Your task to perform on an android device: turn notification dots on Image 0: 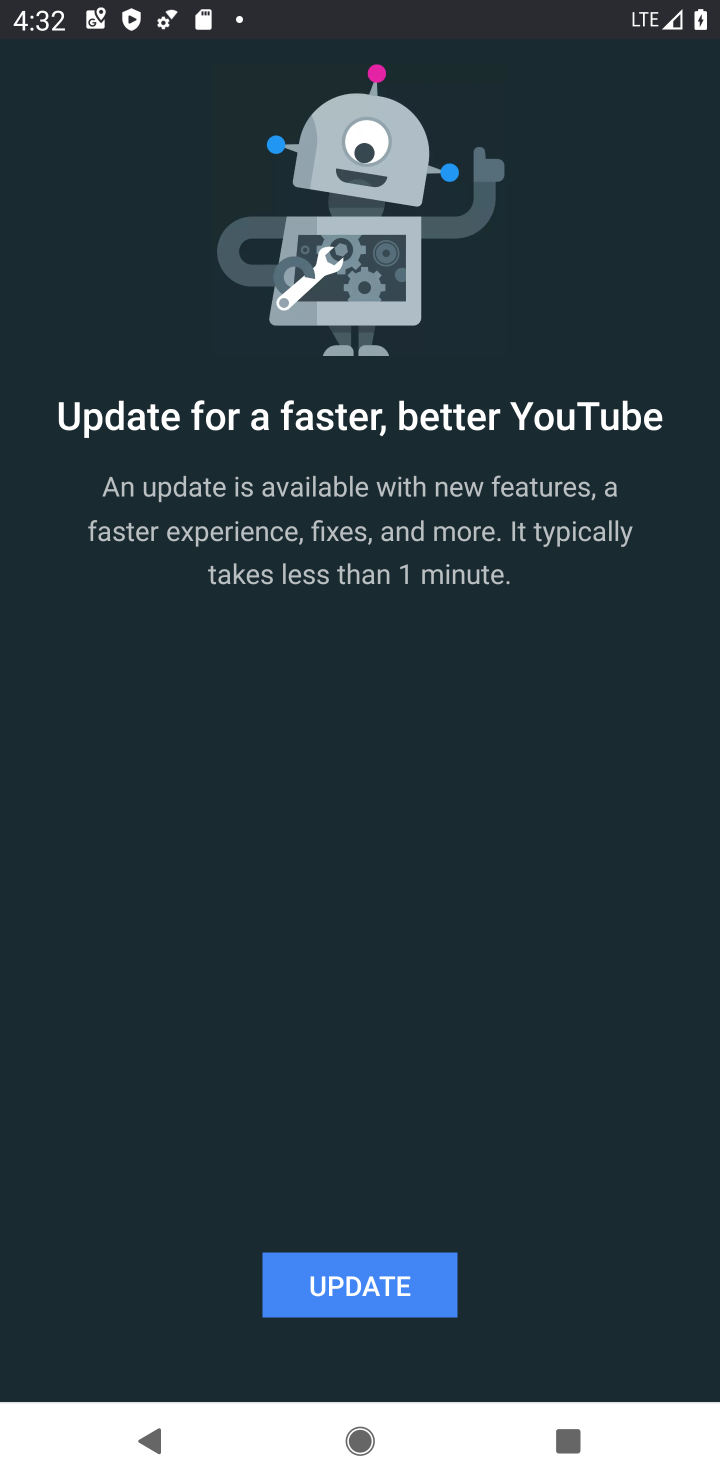
Step 0: press home button
Your task to perform on an android device: turn notification dots on Image 1: 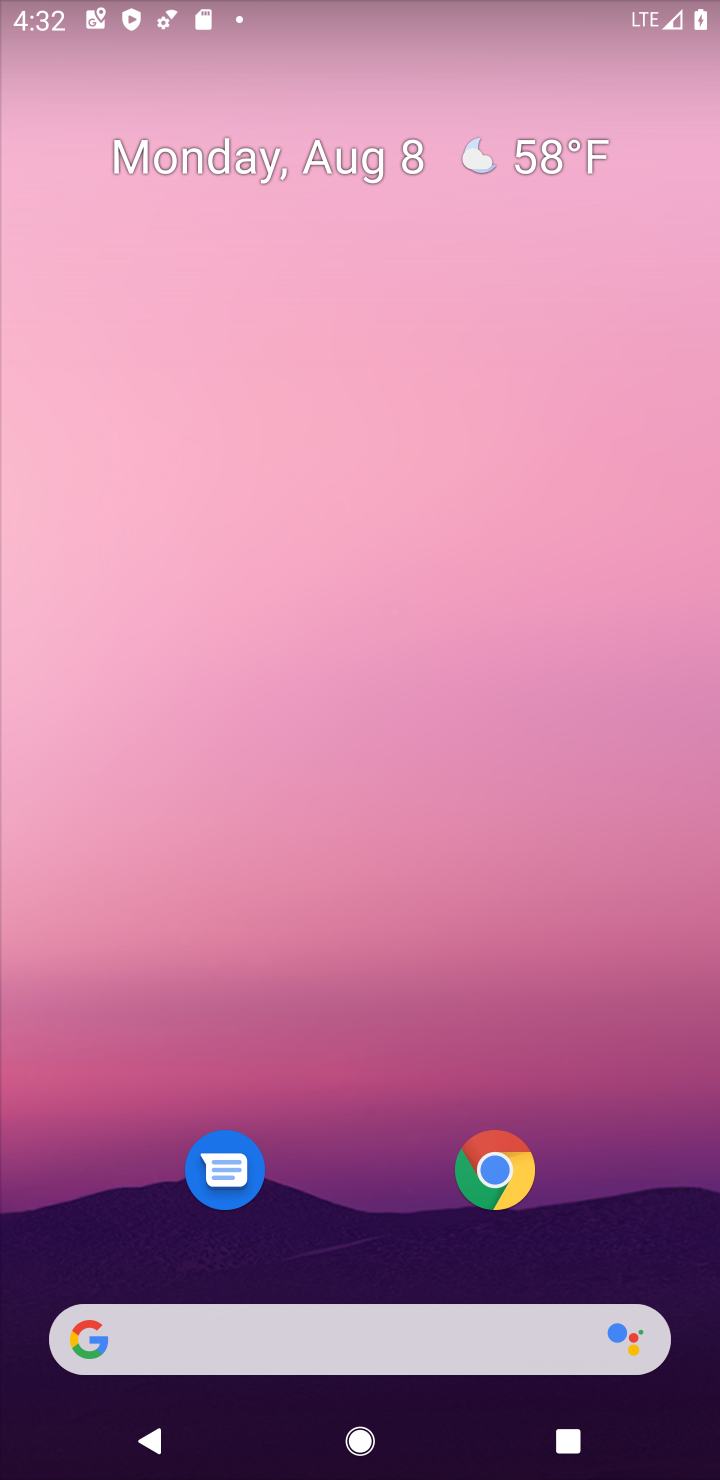
Step 1: drag from (343, 829) to (343, 270)
Your task to perform on an android device: turn notification dots on Image 2: 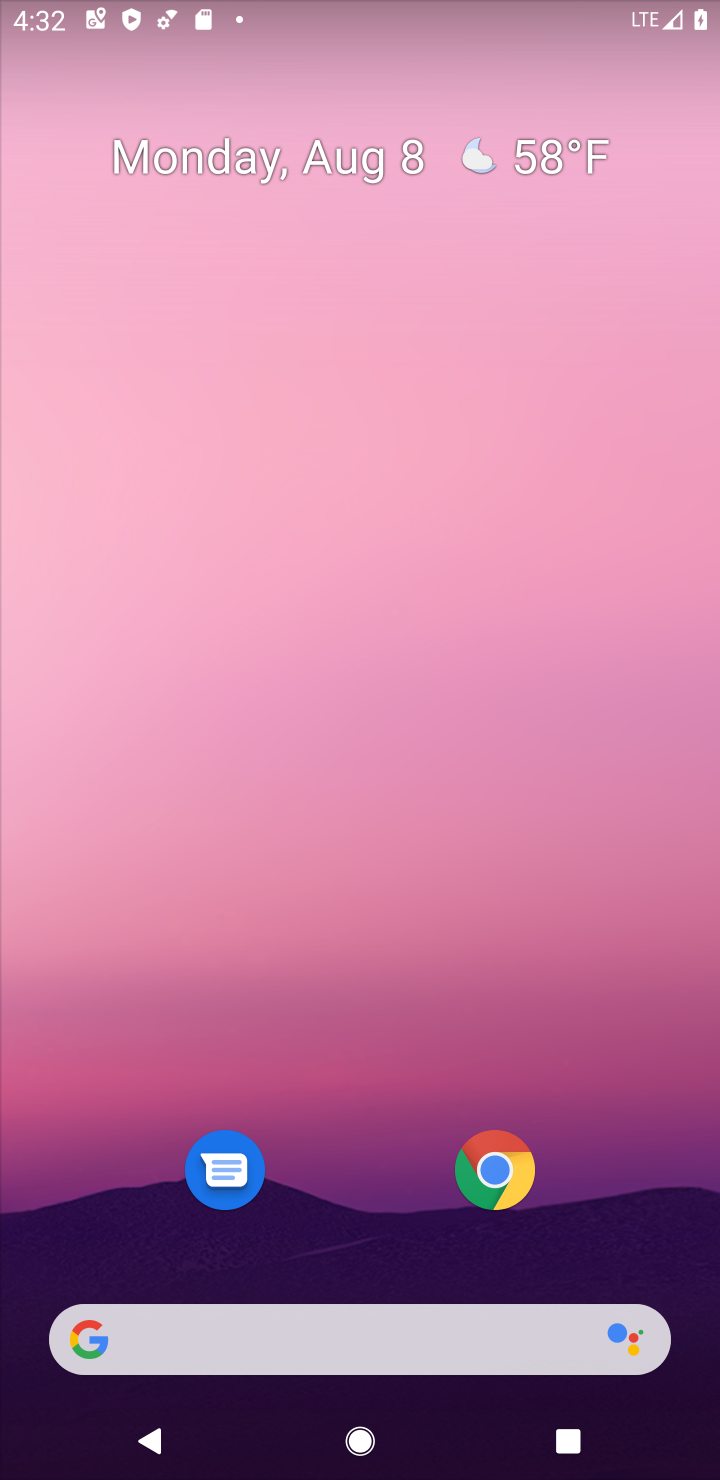
Step 2: drag from (300, 1139) to (290, 285)
Your task to perform on an android device: turn notification dots on Image 3: 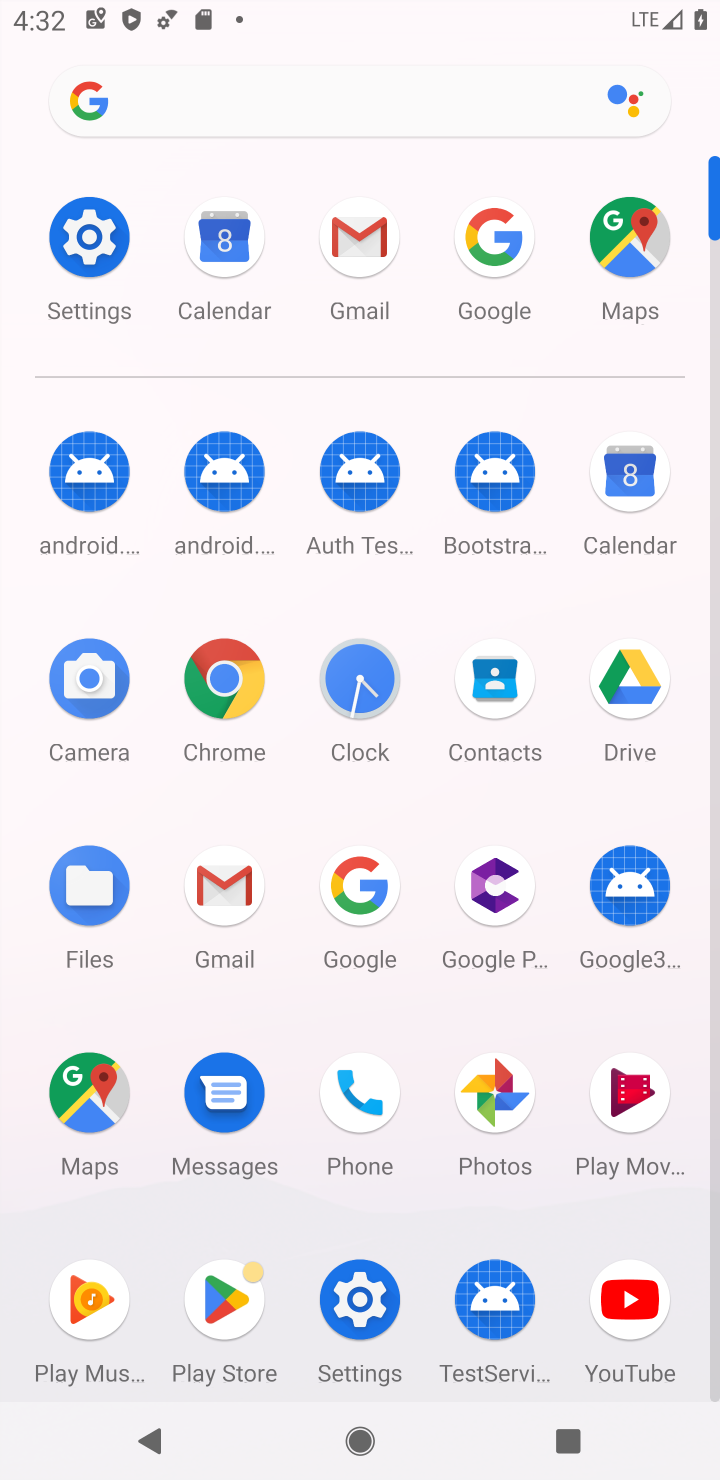
Step 3: click (110, 232)
Your task to perform on an android device: turn notification dots on Image 4: 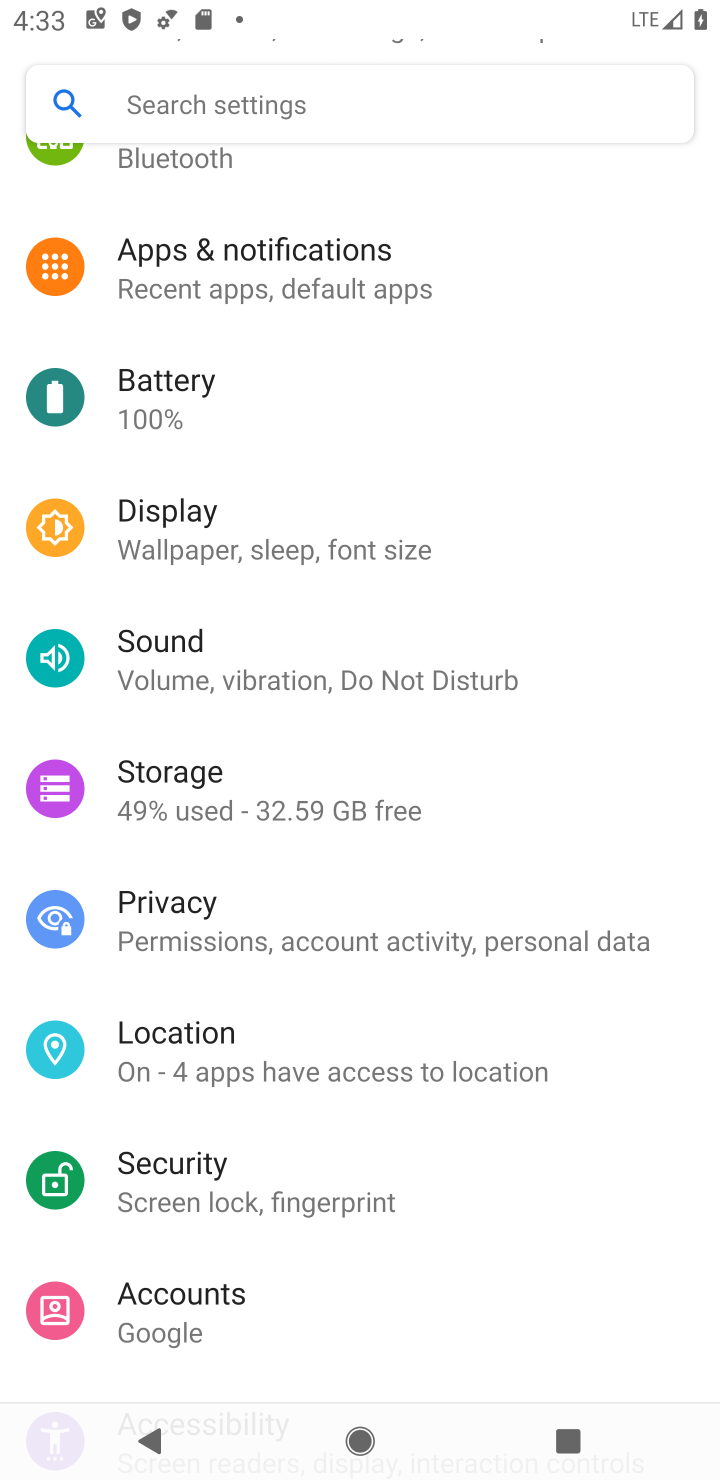
Step 4: click (298, 303)
Your task to perform on an android device: turn notification dots on Image 5: 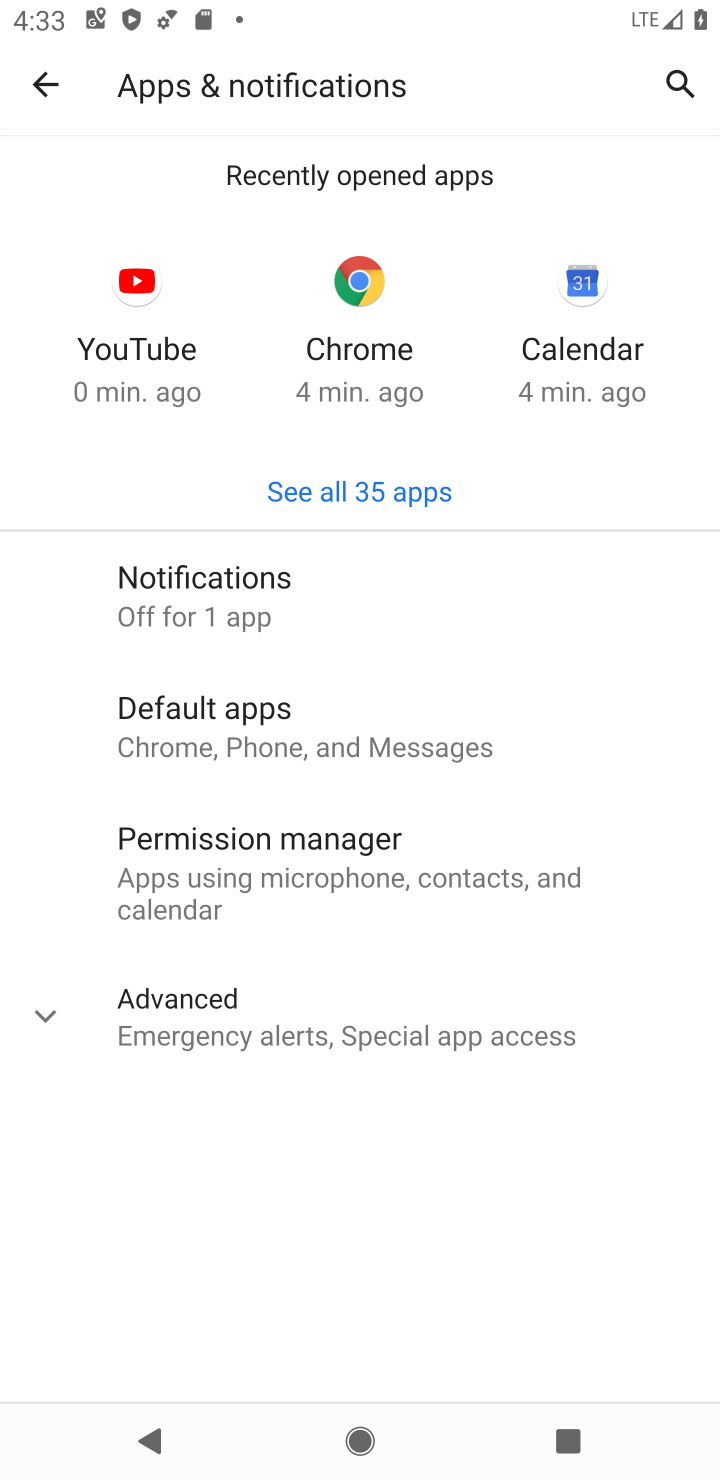
Step 5: click (323, 608)
Your task to perform on an android device: turn notification dots on Image 6: 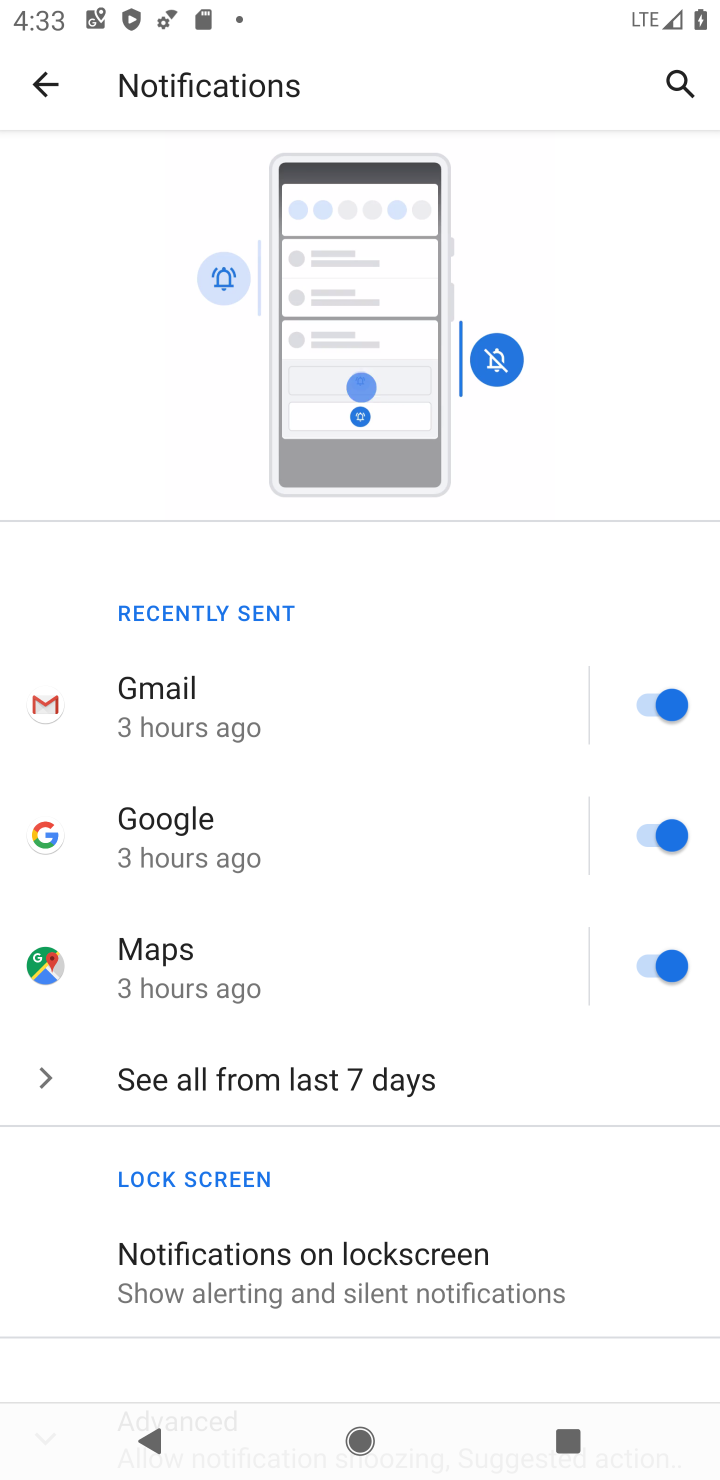
Step 6: drag from (344, 1111) to (334, 673)
Your task to perform on an android device: turn notification dots on Image 7: 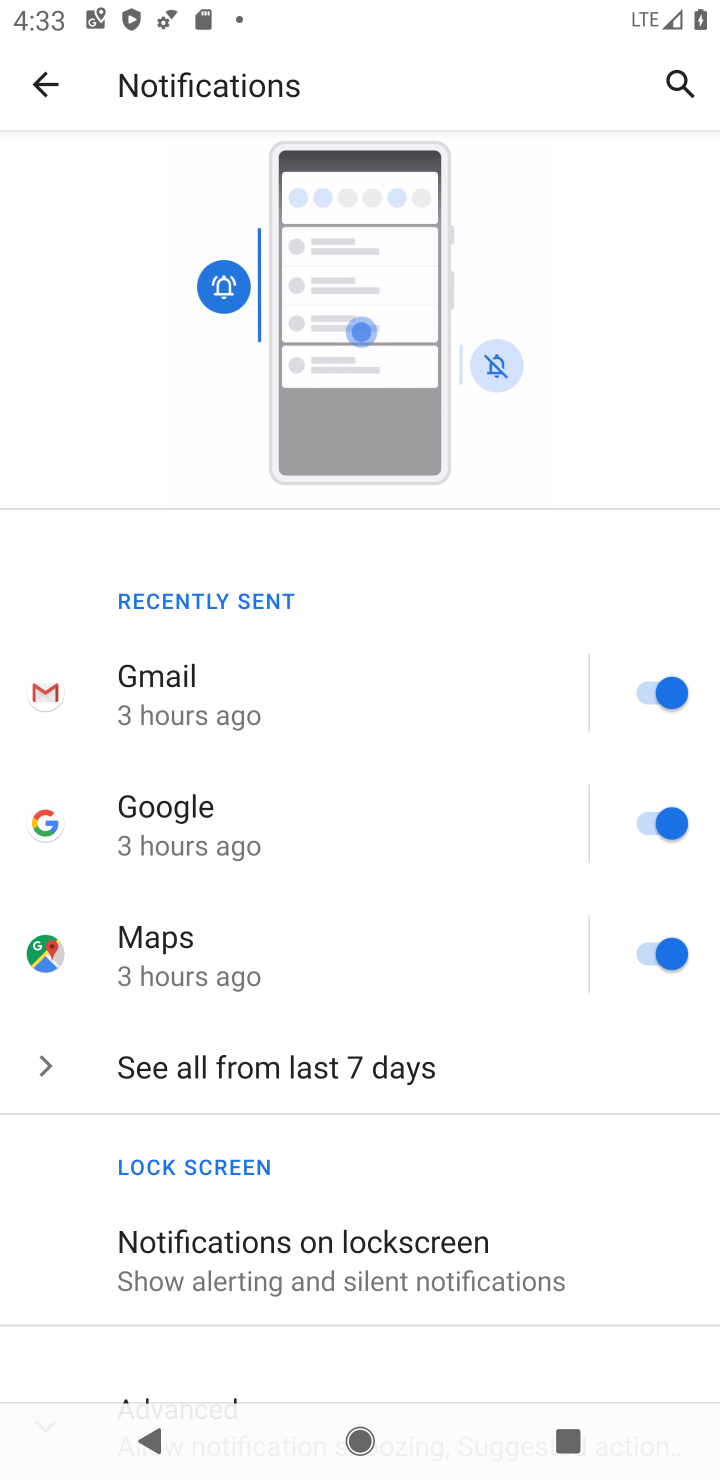
Step 7: drag from (317, 1207) to (291, 548)
Your task to perform on an android device: turn notification dots on Image 8: 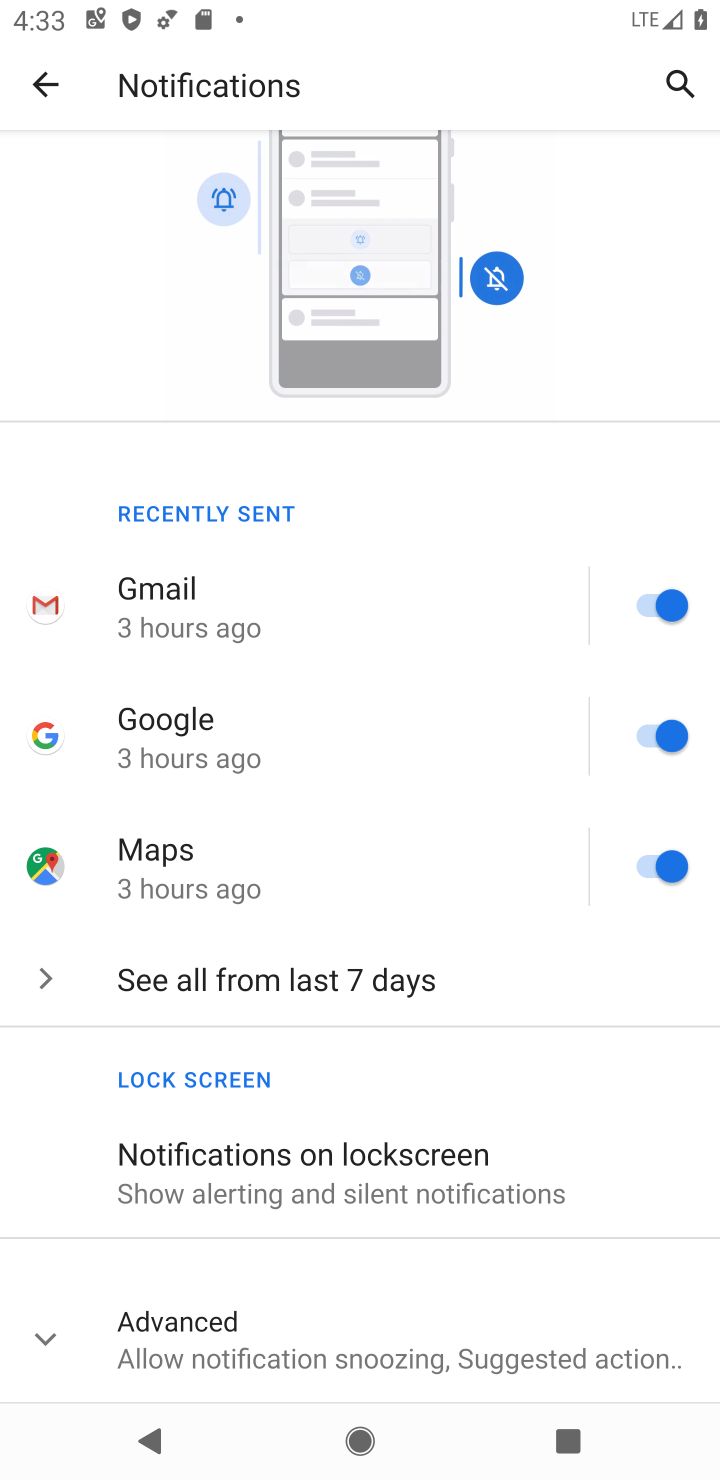
Step 8: click (328, 1362)
Your task to perform on an android device: turn notification dots on Image 9: 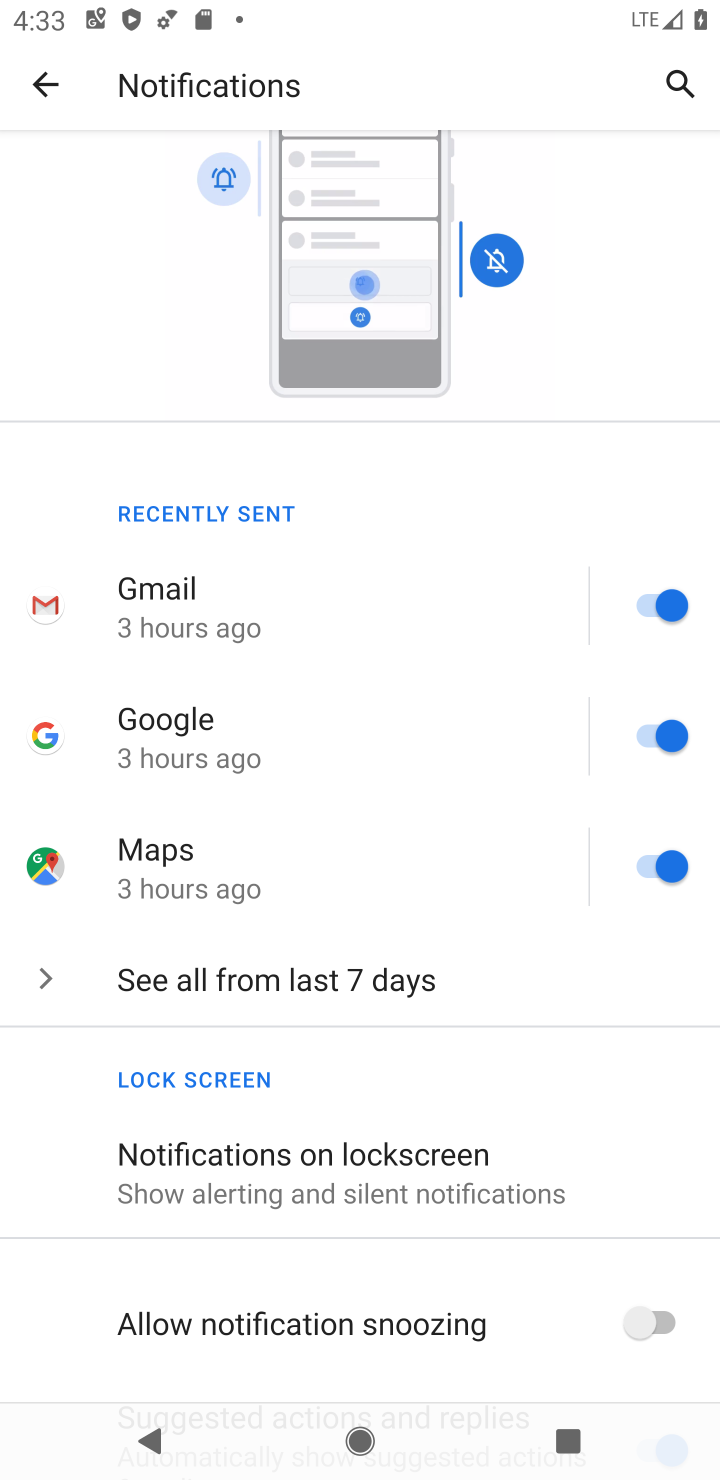
Step 9: task complete